Your task to perform on an android device: toggle notification dots Image 0: 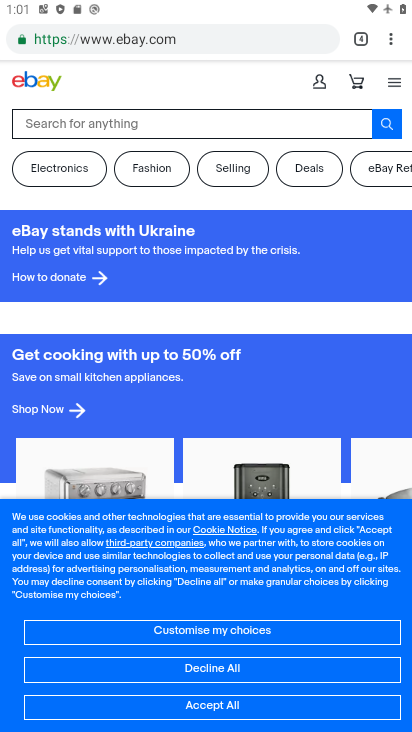
Step 0: press home button
Your task to perform on an android device: toggle notification dots Image 1: 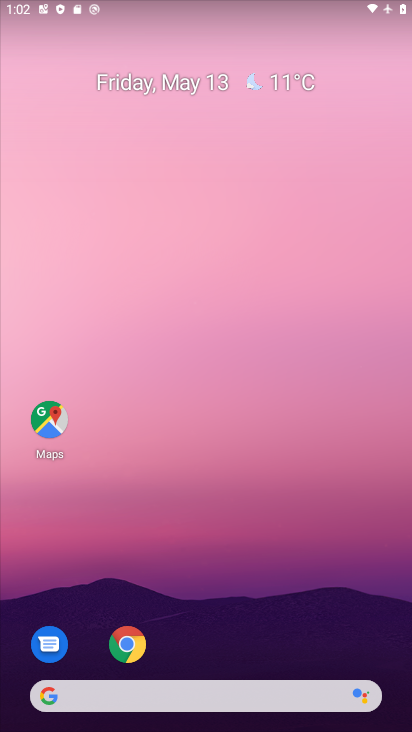
Step 1: drag from (227, 728) to (227, 159)
Your task to perform on an android device: toggle notification dots Image 2: 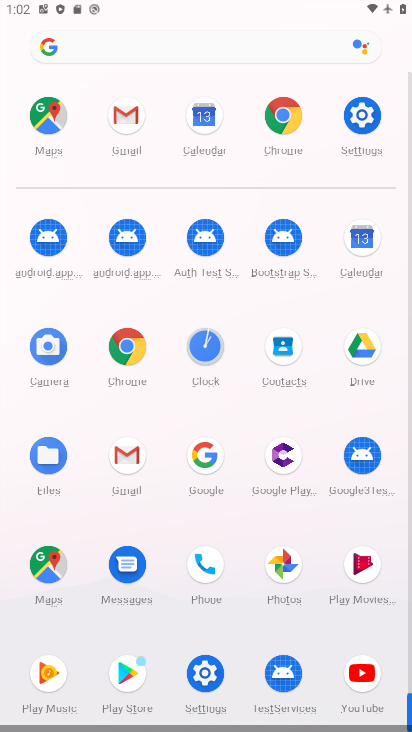
Step 2: click (360, 117)
Your task to perform on an android device: toggle notification dots Image 3: 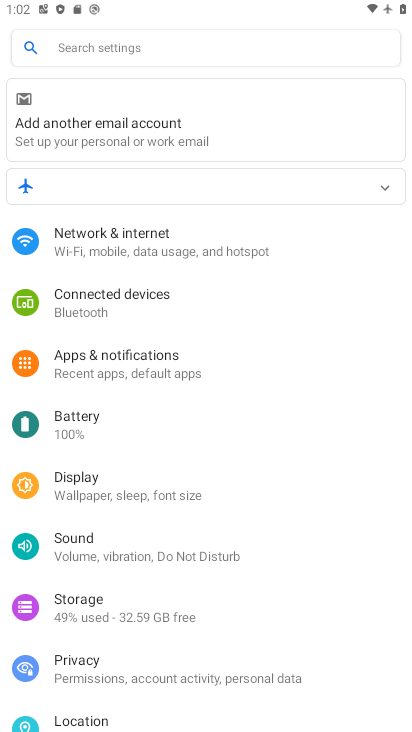
Step 3: click (120, 355)
Your task to perform on an android device: toggle notification dots Image 4: 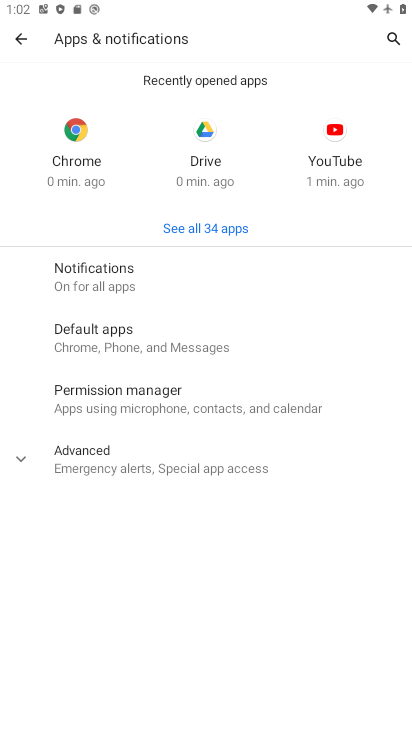
Step 4: click (90, 270)
Your task to perform on an android device: toggle notification dots Image 5: 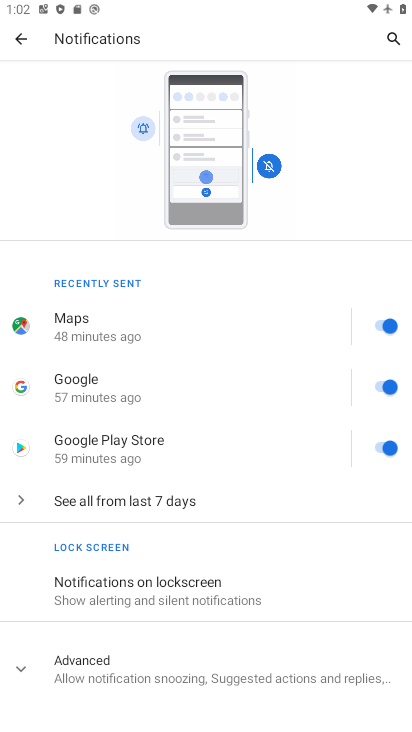
Step 5: drag from (195, 661) to (215, 335)
Your task to perform on an android device: toggle notification dots Image 6: 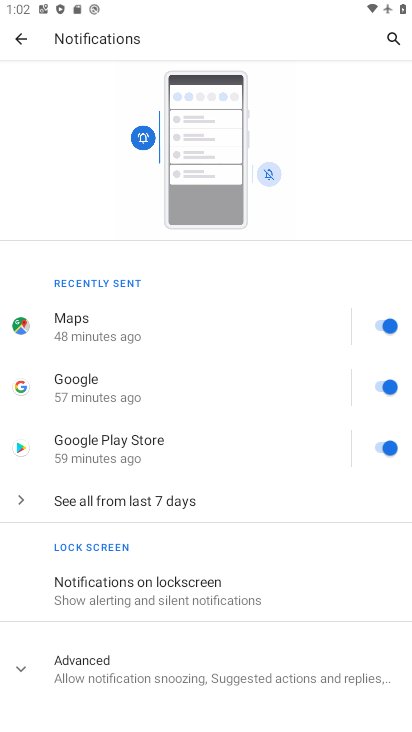
Step 6: click (127, 672)
Your task to perform on an android device: toggle notification dots Image 7: 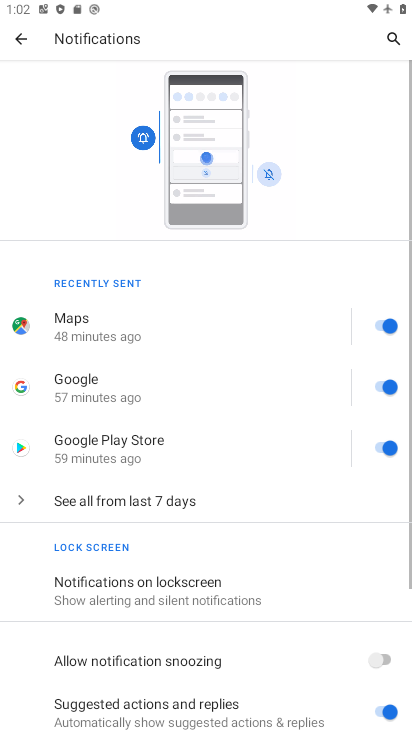
Step 7: drag from (252, 689) to (269, 416)
Your task to perform on an android device: toggle notification dots Image 8: 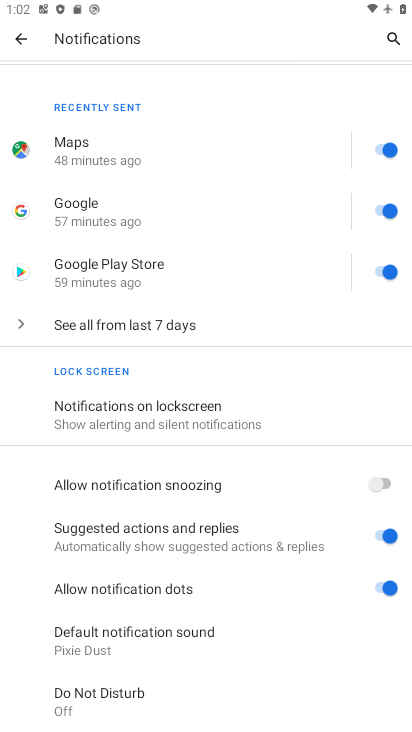
Step 8: click (380, 585)
Your task to perform on an android device: toggle notification dots Image 9: 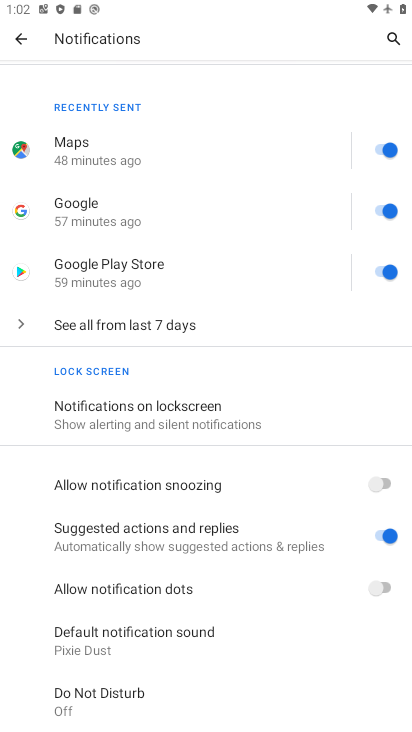
Step 9: task complete